Your task to perform on an android device: Search for Italian restaurants on Maps Image 0: 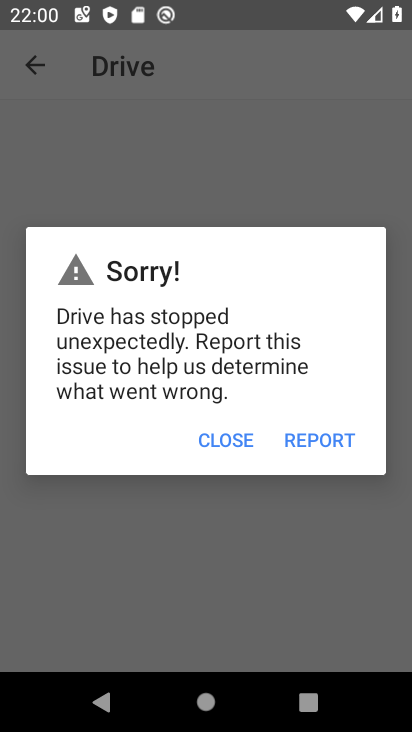
Step 0: press home button
Your task to perform on an android device: Search for Italian restaurants on Maps Image 1: 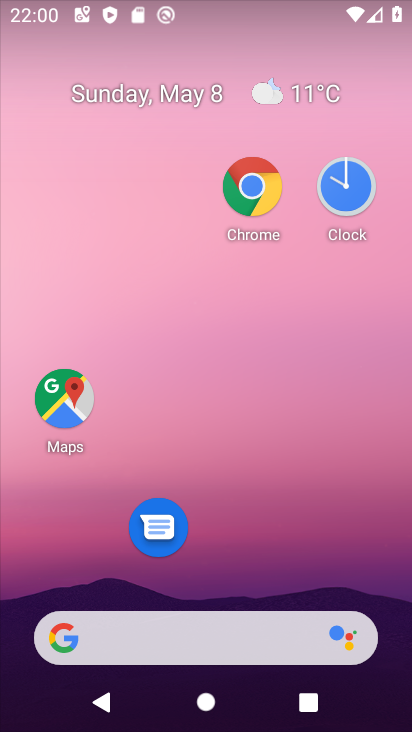
Step 1: click (75, 397)
Your task to perform on an android device: Search for Italian restaurants on Maps Image 2: 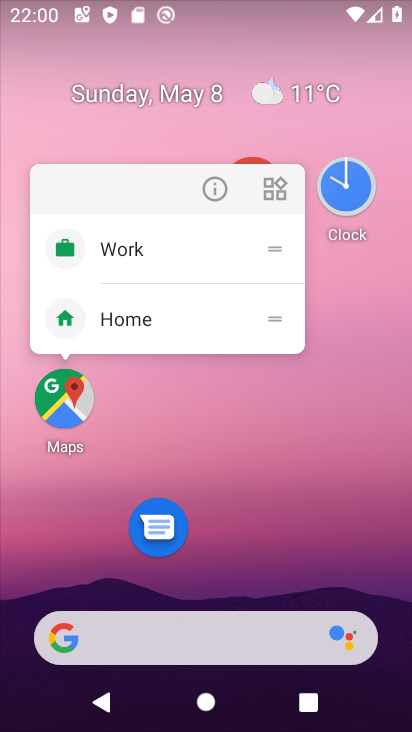
Step 2: click (45, 404)
Your task to perform on an android device: Search for Italian restaurants on Maps Image 3: 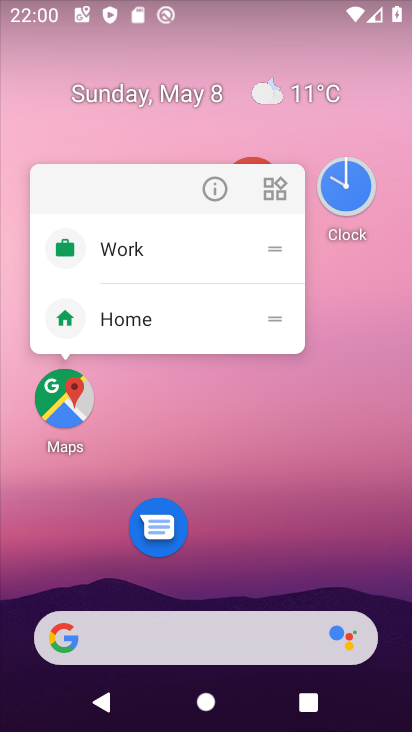
Step 3: click (45, 404)
Your task to perform on an android device: Search for Italian restaurants on Maps Image 4: 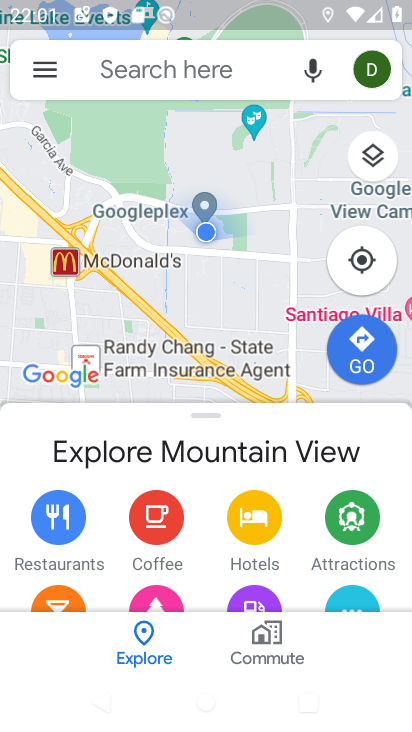
Step 4: click (257, 61)
Your task to perform on an android device: Search for Italian restaurants on Maps Image 5: 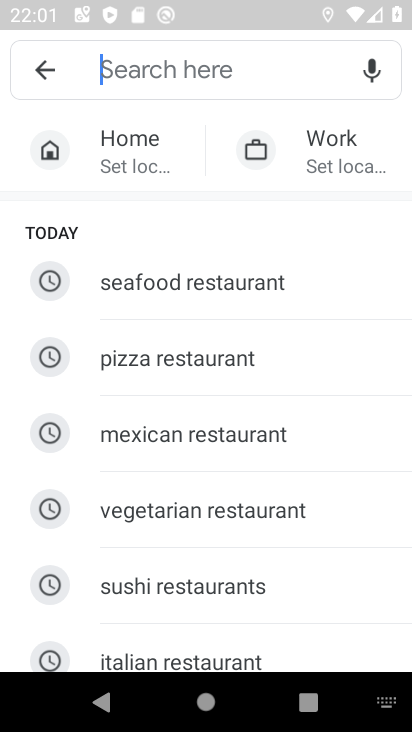
Step 5: click (190, 654)
Your task to perform on an android device: Search for Italian restaurants on Maps Image 6: 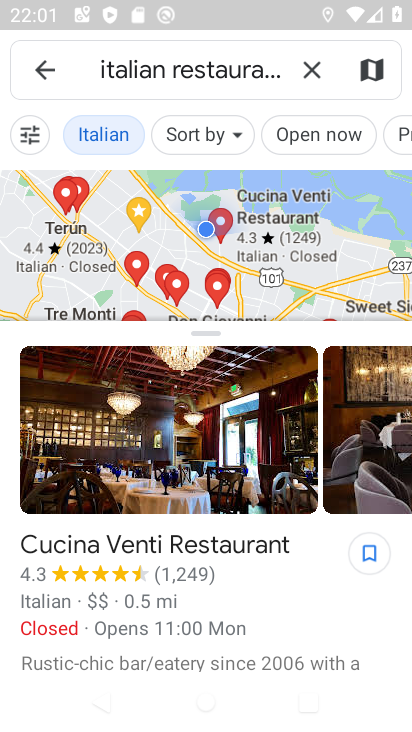
Step 6: task complete